Your task to perform on an android device: check google app version Image 0: 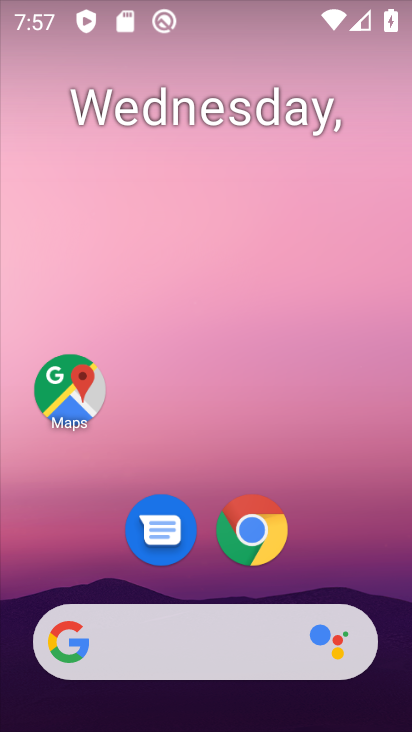
Step 0: drag from (377, 584) to (322, 2)
Your task to perform on an android device: check google app version Image 1: 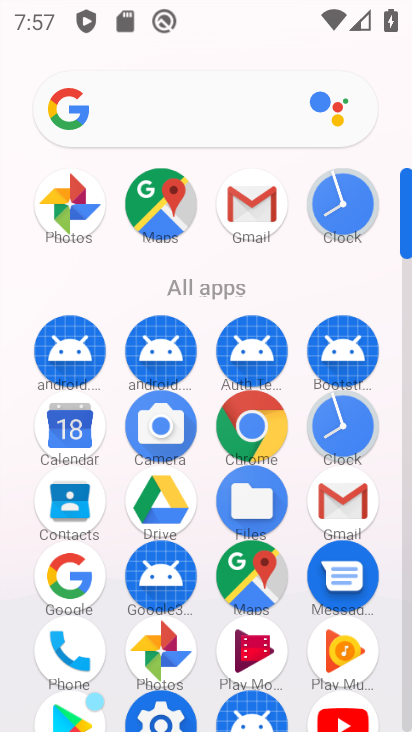
Step 1: click (56, 585)
Your task to perform on an android device: check google app version Image 2: 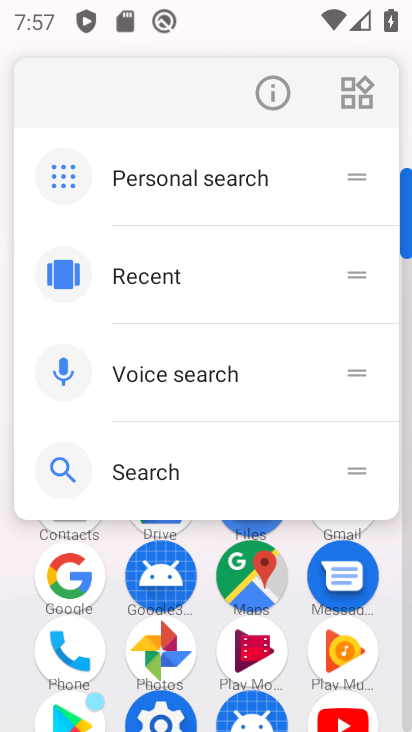
Step 2: click (269, 89)
Your task to perform on an android device: check google app version Image 3: 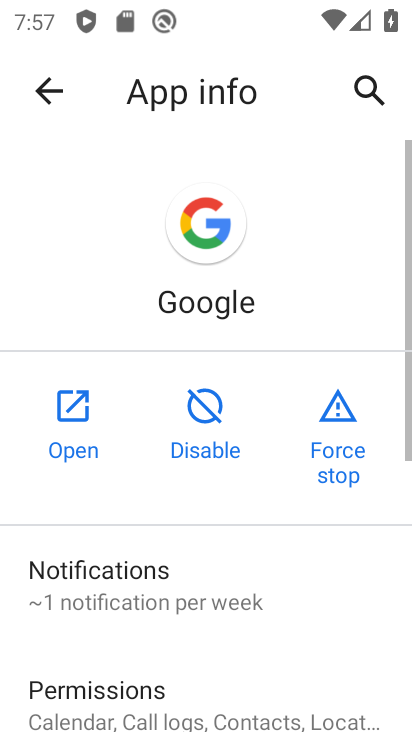
Step 3: drag from (245, 610) to (221, 124)
Your task to perform on an android device: check google app version Image 4: 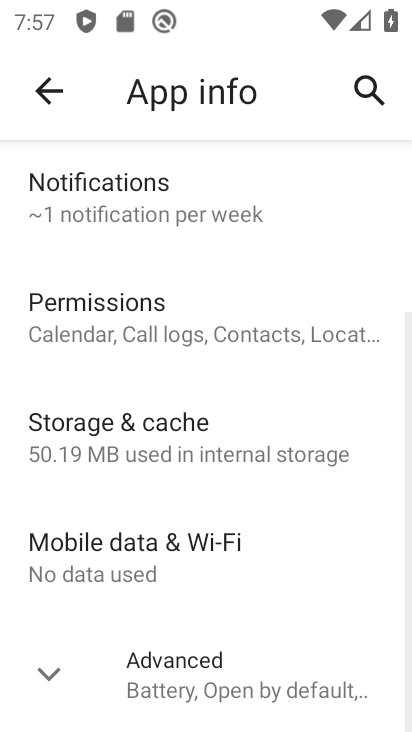
Step 4: drag from (240, 576) to (227, 221)
Your task to perform on an android device: check google app version Image 5: 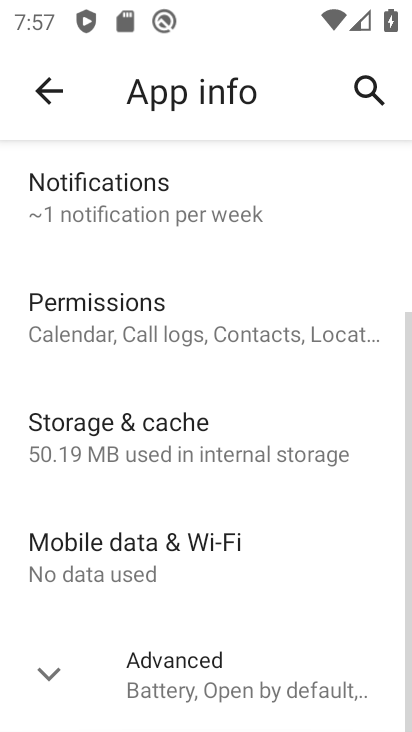
Step 5: click (46, 685)
Your task to perform on an android device: check google app version Image 6: 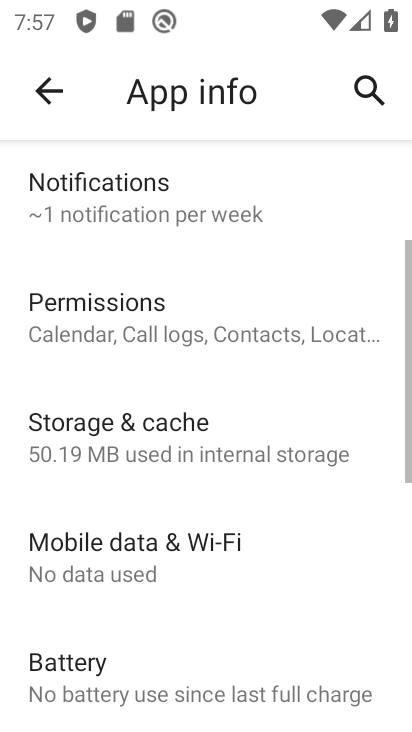
Step 6: task complete